Your task to perform on an android device: all mails in gmail Image 0: 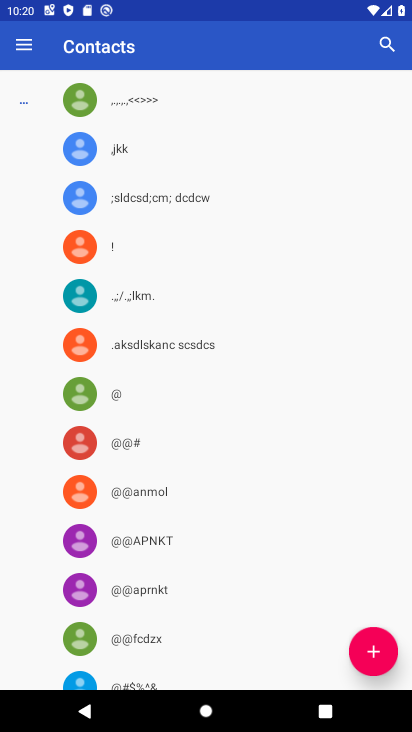
Step 0: press home button
Your task to perform on an android device: all mails in gmail Image 1: 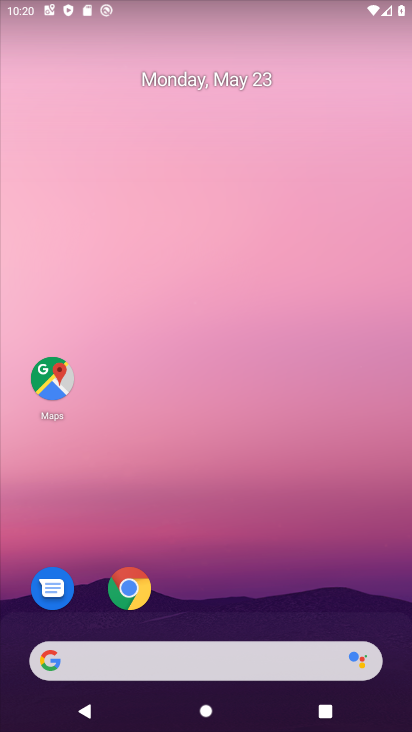
Step 1: drag from (272, 455) to (279, 170)
Your task to perform on an android device: all mails in gmail Image 2: 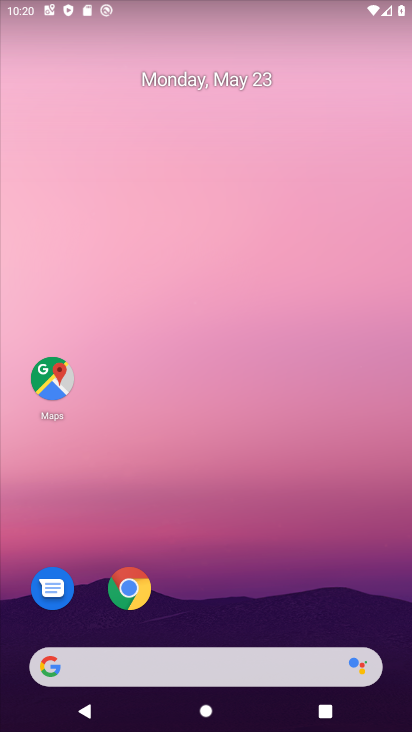
Step 2: drag from (281, 459) to (236, 80)
Your task to perform on an android device: all mails in gmail Image 3: 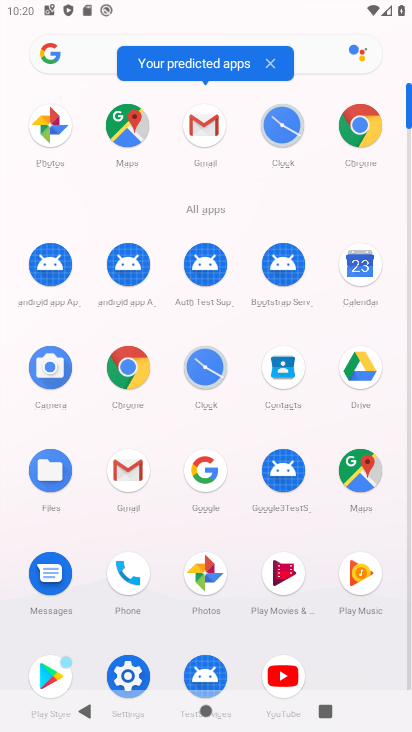
Step 3: click (209, 129)
Your task to perform on an android device: all mails in gmail Image 4: 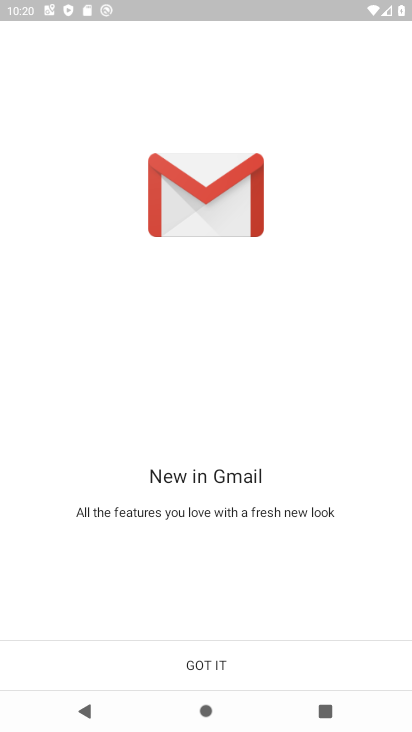
Step 4: click (241, 654)
Your task to perform on an android device: all mails in gmail Image 5: 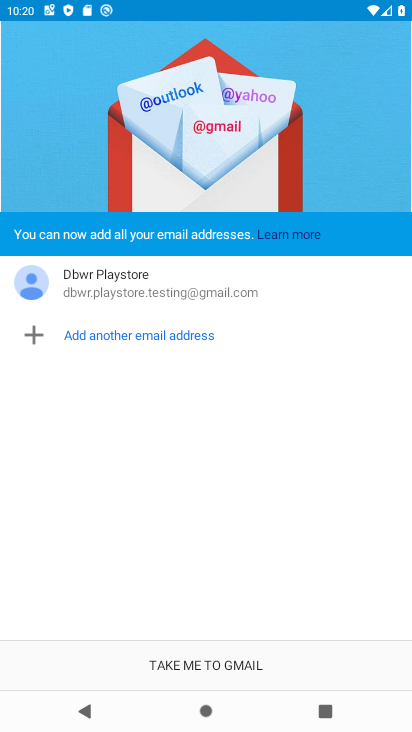
Step 5: click (241, 654)
Your task to perform on an android device: all mails in gmail Image 6: 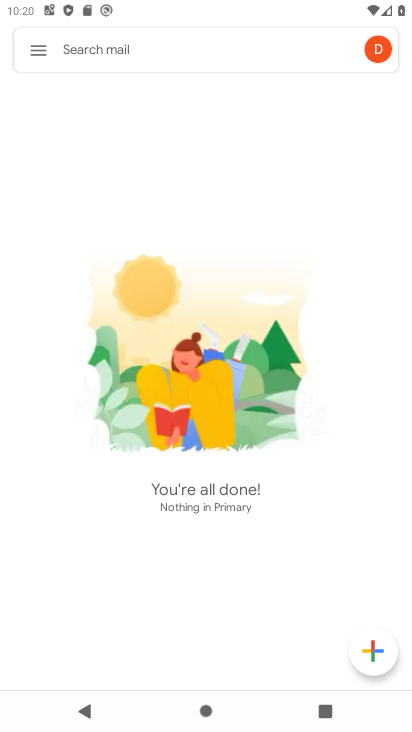
Step 6: click (37, 48)
Your task to perform on an android device: all mails in gmail Image 7: 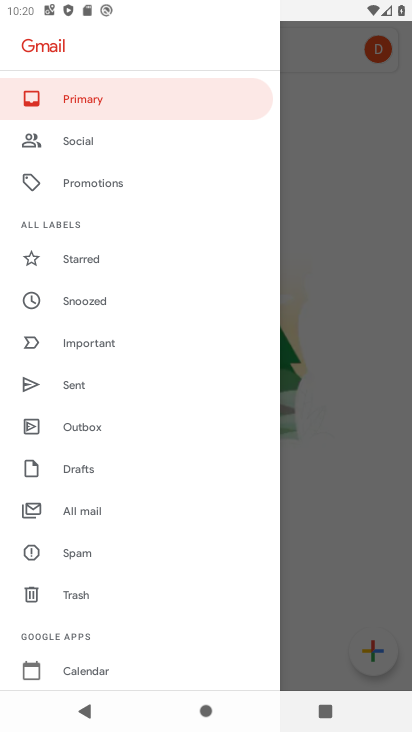
Step 7: click (89, 511)
Your task to perform on an android device: all mails in gmail Image 8: 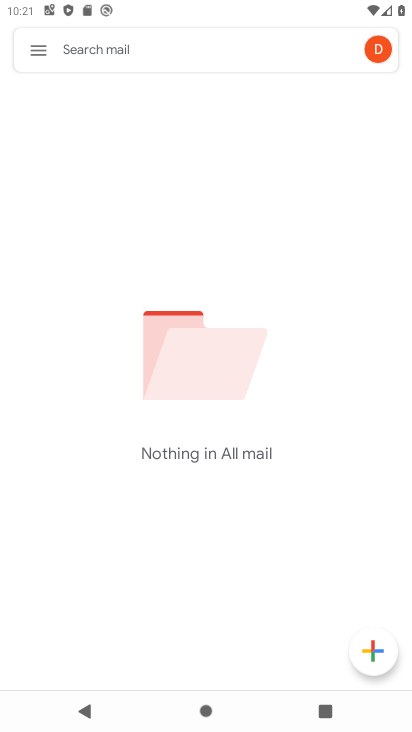
Step 8: task complete